Your task to perform on an android device: View the shopping cart on bestbuy.com. Search for "alienware aurora" on bestbuy.com, select the first entry, add it to the cart, then select checkout. Image 0: 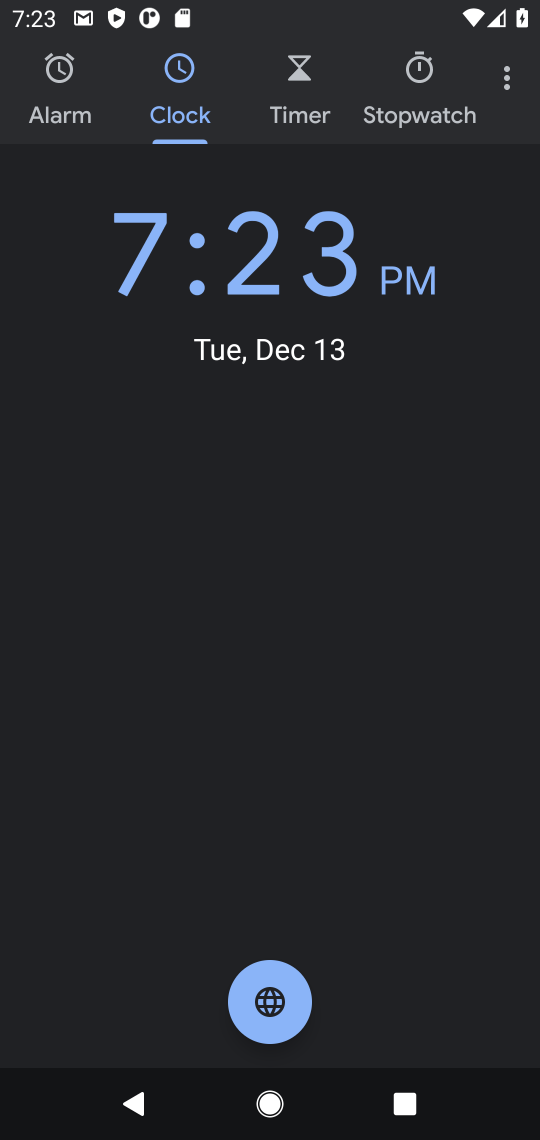
Step 0: press home button
Your task to perform on an android device: View the shopping cart on bestbuy.com. Search for "alienware aurora" on bestbuy.com, select the first entry, add it to the cart, then select checkout. Image 1: 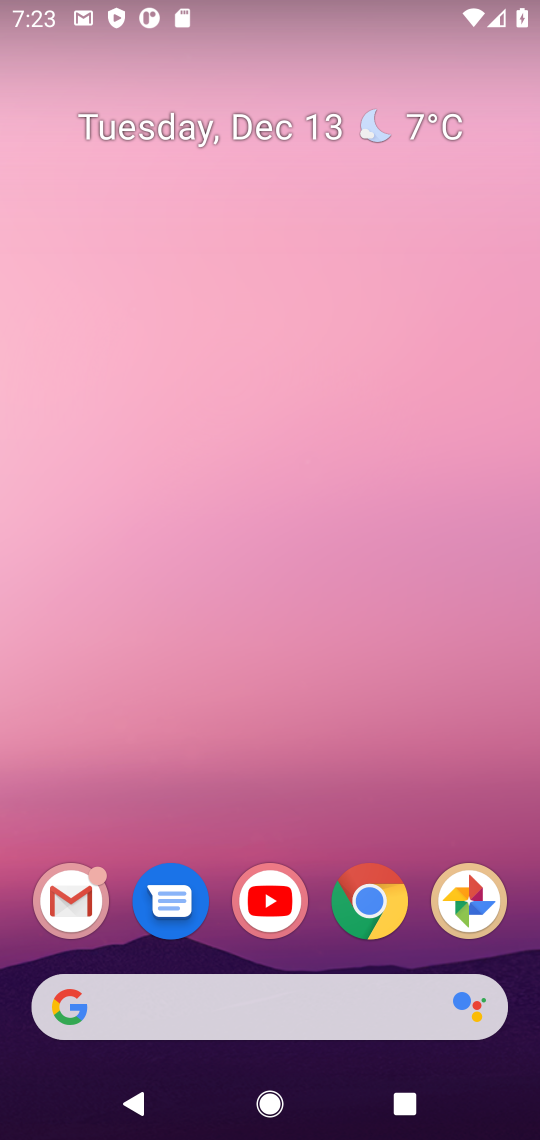
Step 1: click (354, 903)
Your task to perform on an android device: View the shopping cart on bestbuy.com. Search for "alienware aurora" on bestbuy.com, select the first entry, add it to the cart, then select checkout. Image 2: 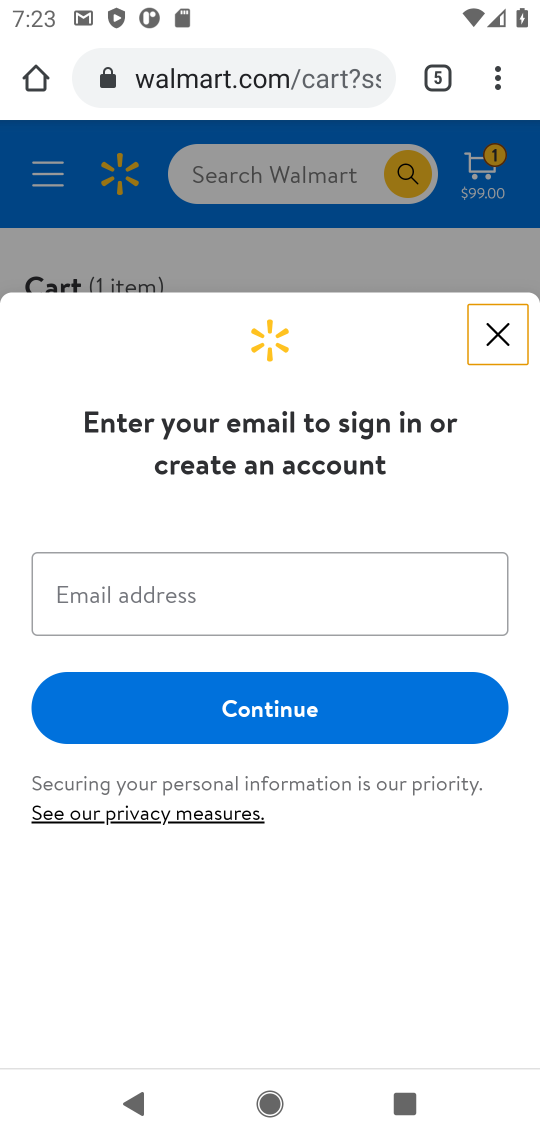
Step 2: click (435, 75)
Your task to perform on an android device: View the shopping cart on bestbuy.com. Search for "alienware aurora" on bestbuy.com, select the first entry, add it to the cart, then select checkout. Image 3: 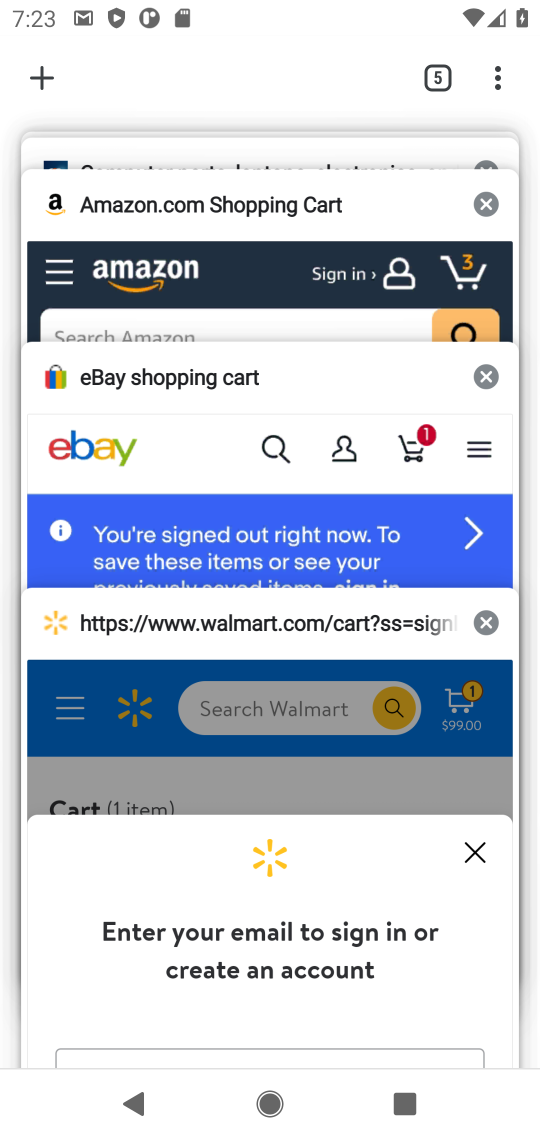
Step 3: drag from (287, 154) to (222, 450)
Your task to perform on an android device: View the shopping cart on bestbuy.com. Search for "alienware aurora" on bestbuy.com, select the first entry, add it to the cart, then select checkout. Image 4: 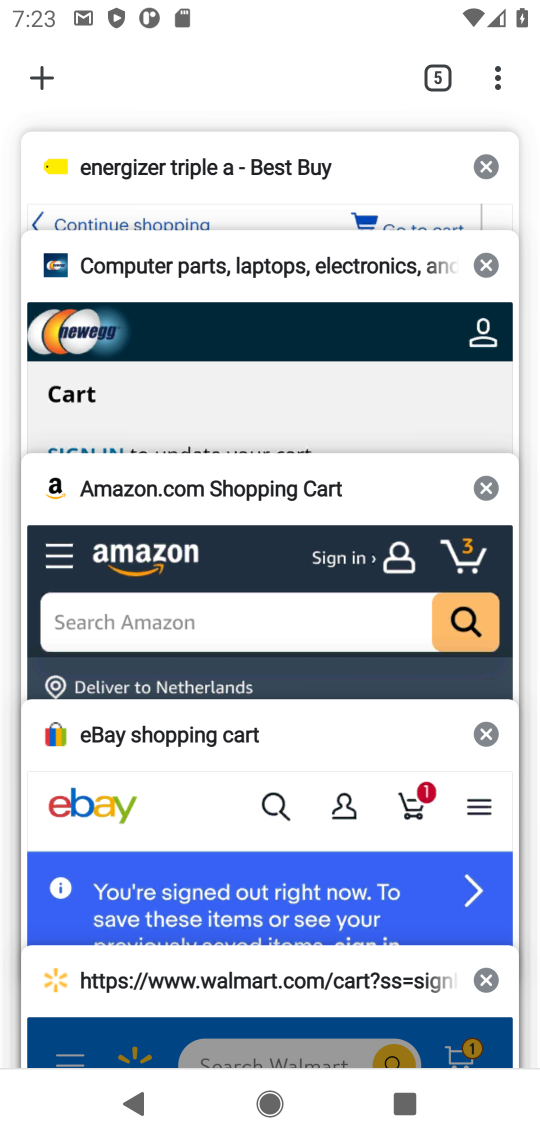
Step 4: click (288, 179)
Your task to perform on an android device: View the shopping cart on bestbuy.com. Search for "alienware aurora" on bestbuy.com, select the first entry, add it to the cart, then select checkout. Image 5: 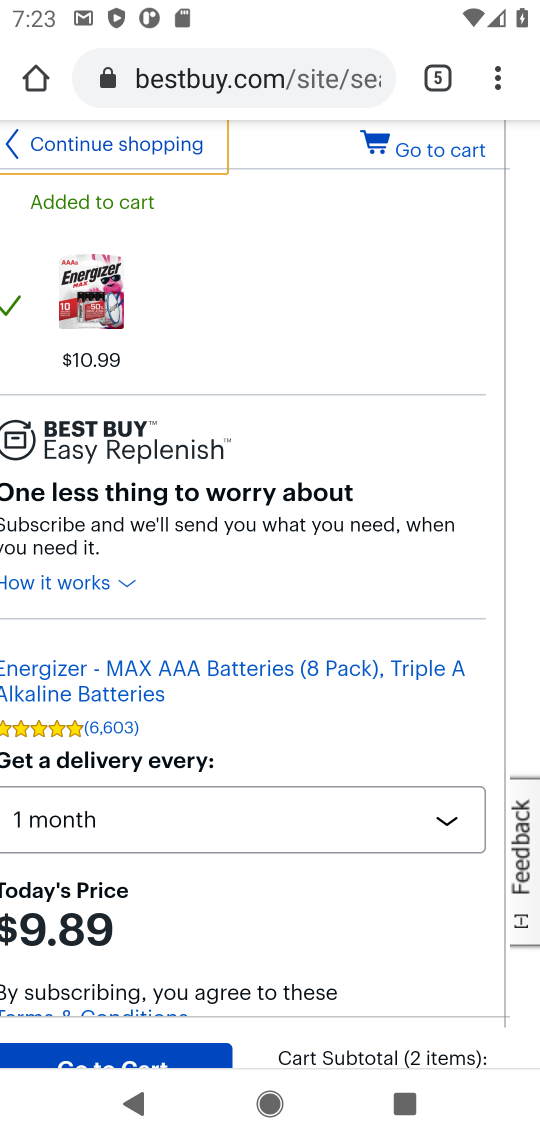
Step 5: click (131, 148)
Your task to perform on an android device: View the shopping cart on bestbuy.com. Search for "alienware aurora" on bestbuy.com, select the first entry, add it to the cart, then select checkout. Image 6: 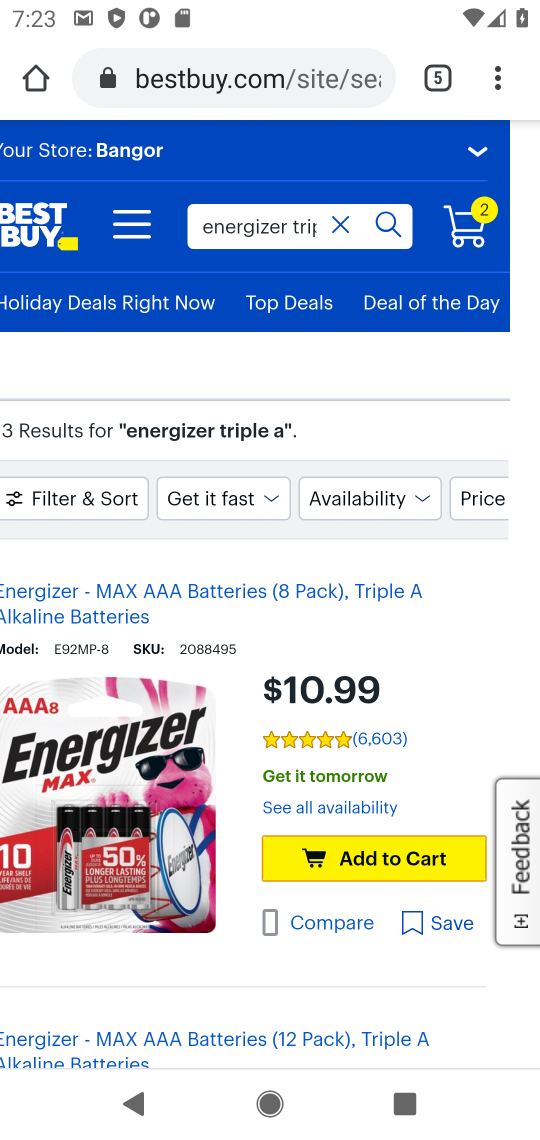
Step 6: click (355, 220)
Your task to perform on an android device: View the shopping cart on bestbuy.com. Search for "alienware aurora" on bestbuy.com, select the first entry, add it to the cart, then select checkout. Image 7: 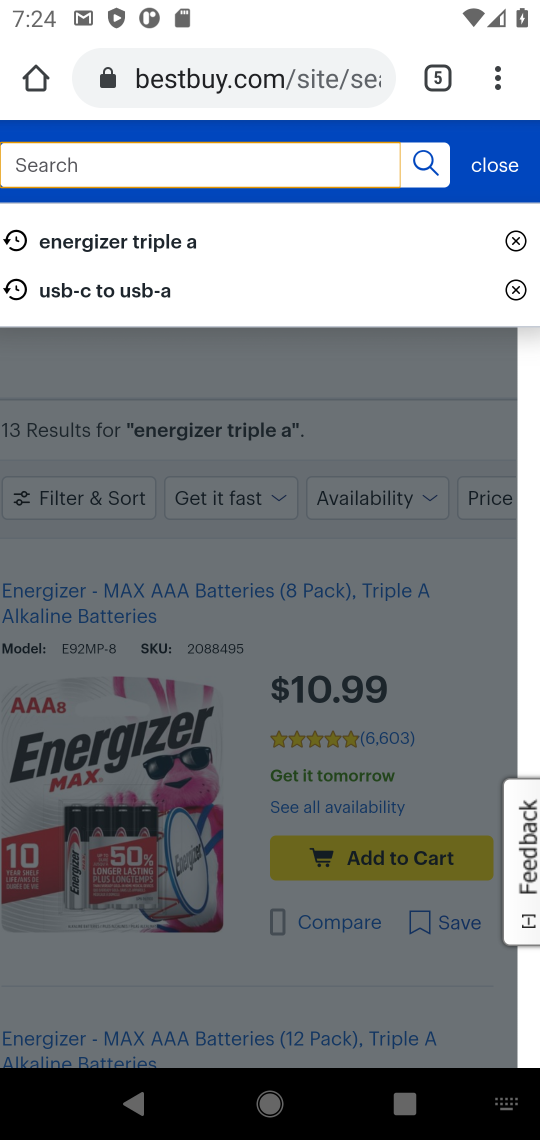
Step 7: type "alienware aurora"
Your task to perform on an android device: View the shopping cart on bestbuy.com. Search for "alienware aurora" on bestbuy.com, select the first entry, add it to the cart, then select checkout. Image 8: 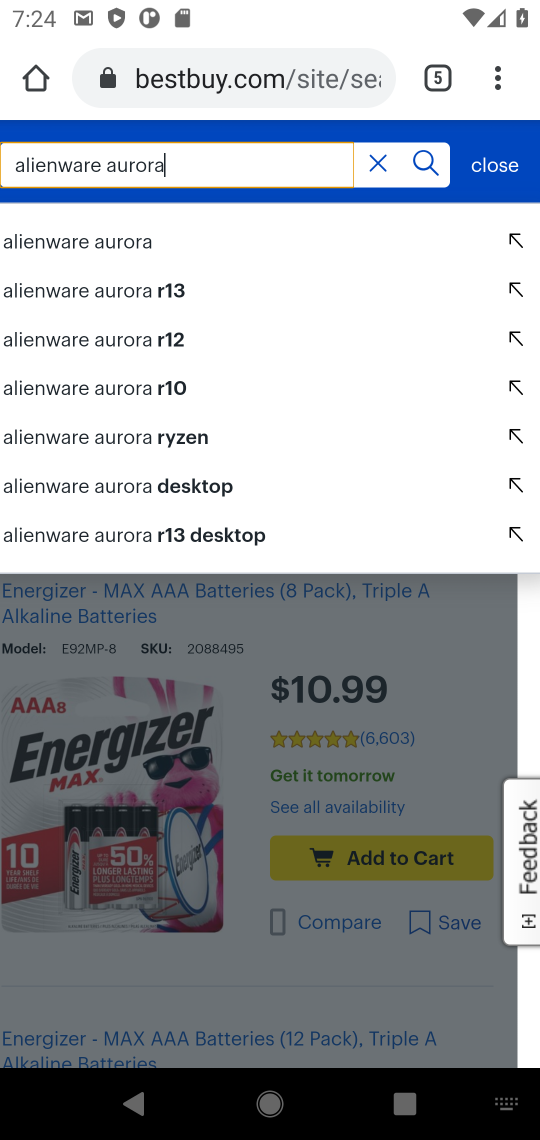
Step 8: click (75, 239)
Your task to perform on an android device: View the shopping cart on bestbuy.com. Search for "alienware aurora" on bestbuy.com, select the first entry, add it to the cart, then select checkout. Image 9: 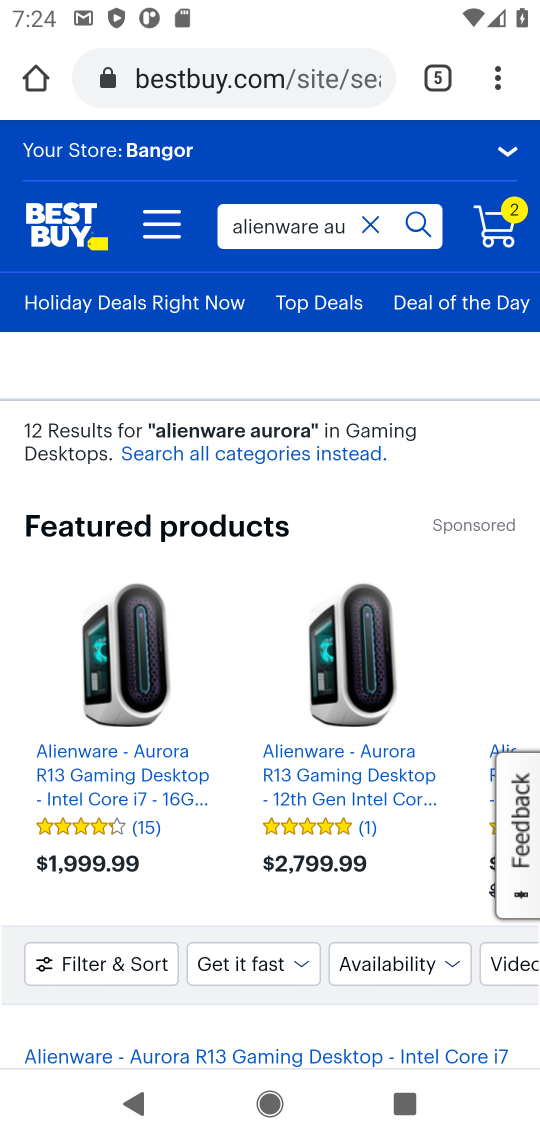
Step 9: drag from (177, 911) to (14, 60)
Your task to perform on an android device: View the shopping cart on bestbuy.com. Search for "alienware aurora" on bestbuy.com, select the first entry, add it to the cart, then select checkout. Image 10: 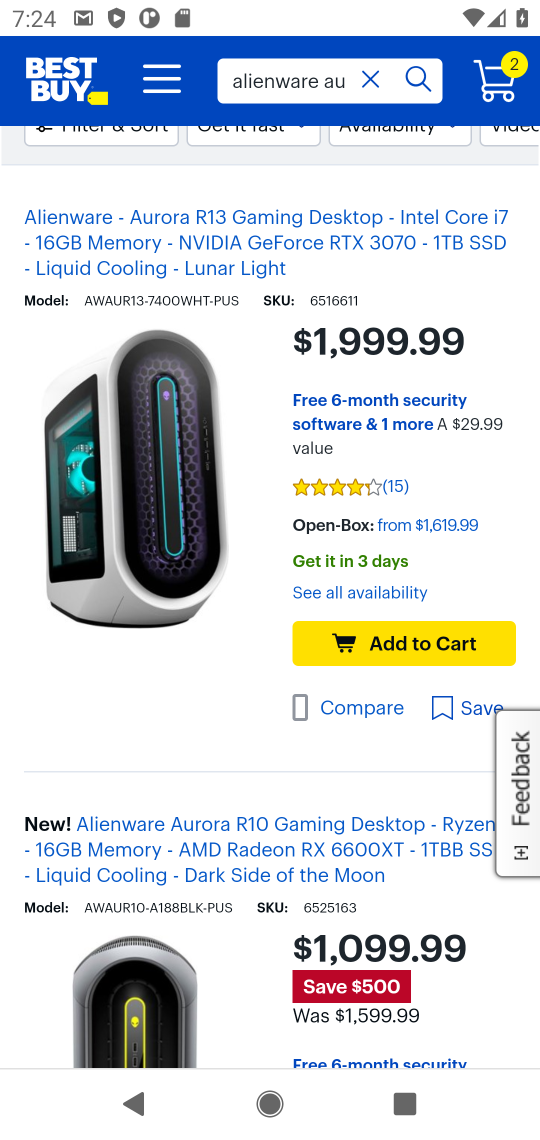
Step 10: click (397, 642)
Your task to perform on an android device: View the shopping cart on bestbuy.com. Search for "alienware aurora" on bestbuy.com, select the first entry, add it to the cart, then select checkout. Image 11: 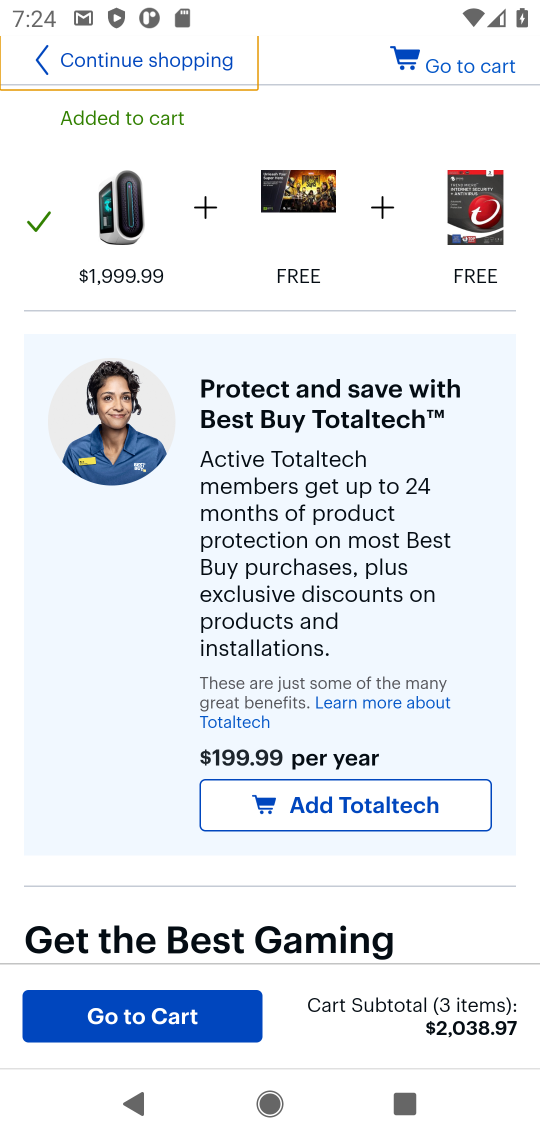
Step 11: task complete